Your task to perform on an android device: When is my next appointment? Image 0: 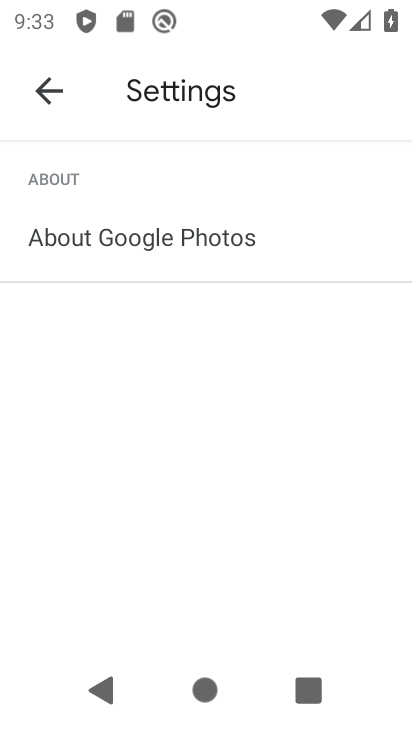
Step 0: press home button
Your task to perform on an android device: When is my next appointment? Image 1: 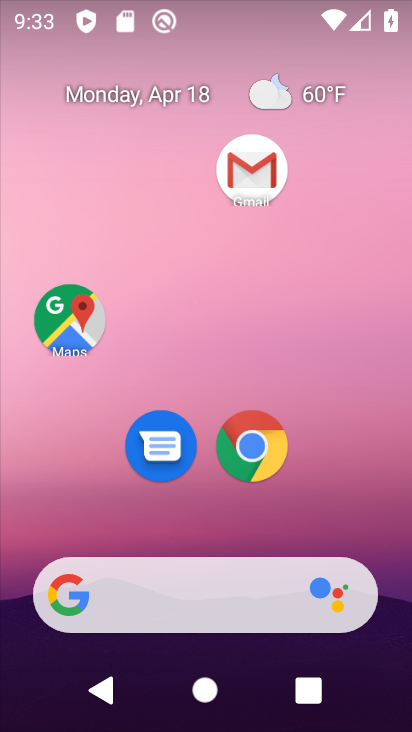
Step 1: drag from (190, 514) to (258, 97)
Your task to perform on an android device: When is my next appointment? Image 2: 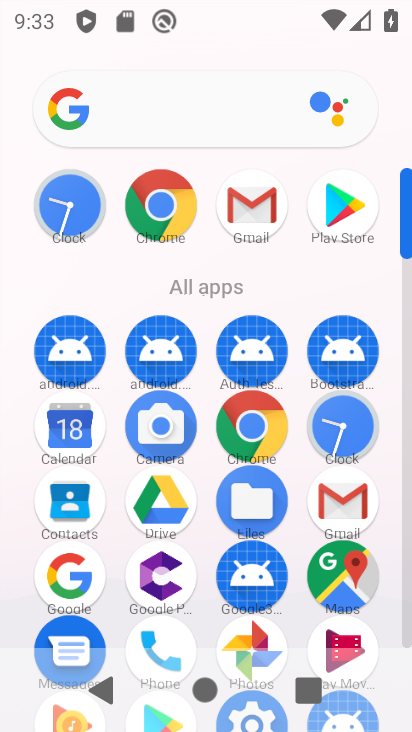
Step 2: drag from (143, 557) to (195, 315)
Your task to perform on an android device: When is my next appointment? Image 3: 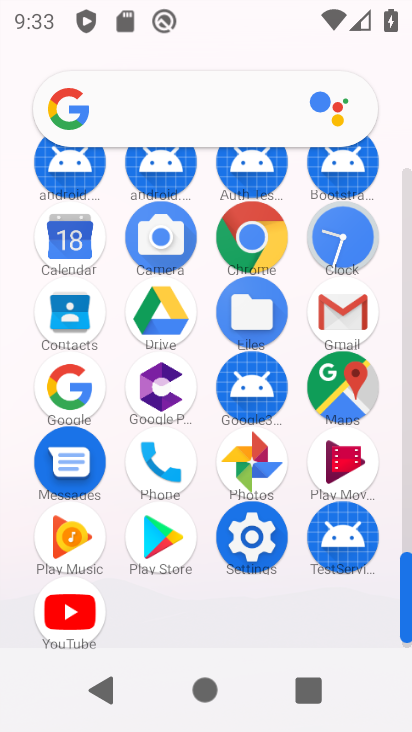
Step 3: click (72, 245)
Your task to perform on an android device: When is my next appointment? Image 4: 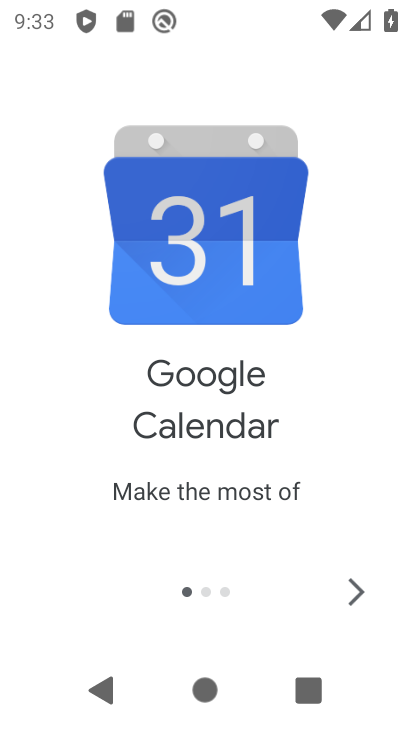
Step 4: click (364, 583)
Your task to perform on an android device: When is my next appointment? Image 5: 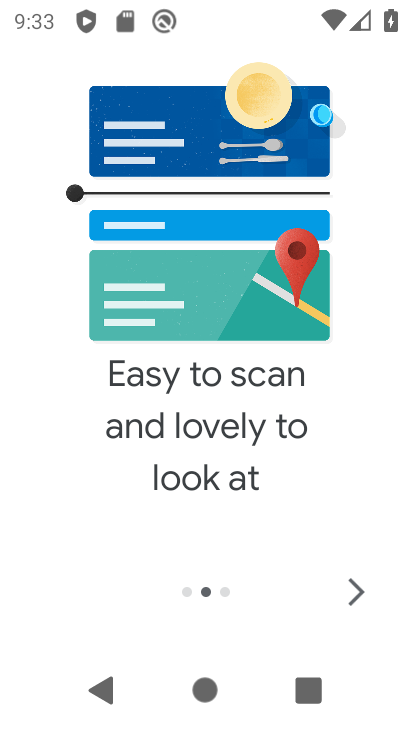
Step 5: click (364, 583)
Your task to perform on an android device: When is my next appointment? Image 6: 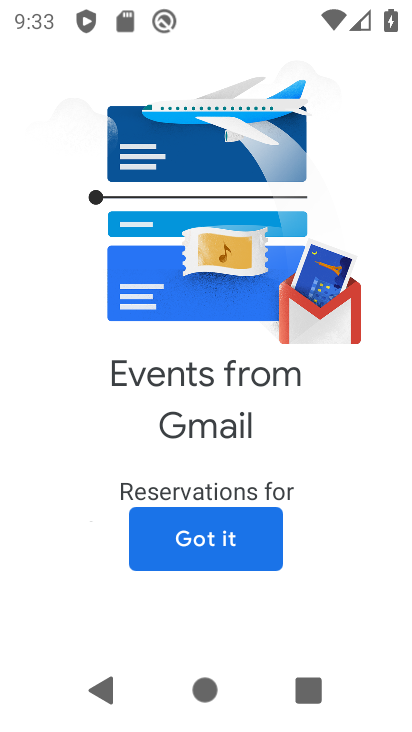
Step 6: click (189, 557)
Your task to perform on an android device: When is my next appointment? Image 7: 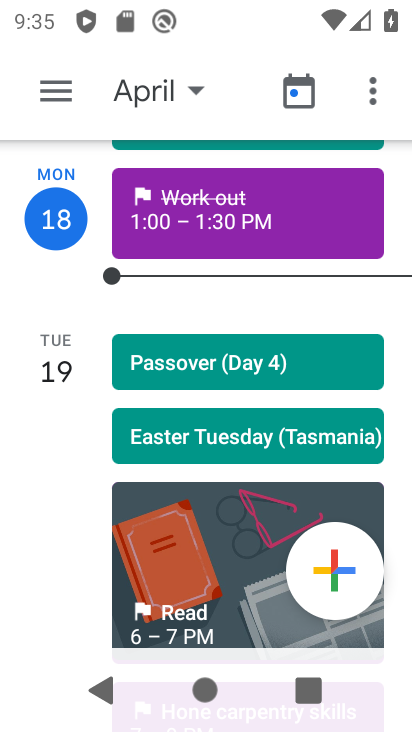
Step 7: click (53, 87)
Your task to perform on an android device: When is my next appointment? Image 8: 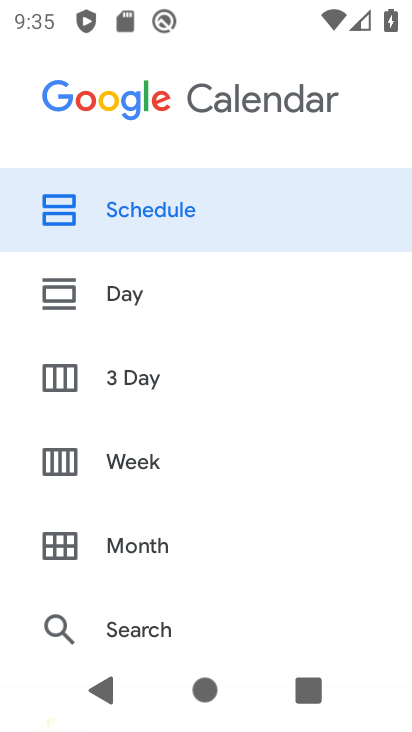
Step 8: click (163, 467)
Your task to perform on an android device: When is my next appointment? Image 9: 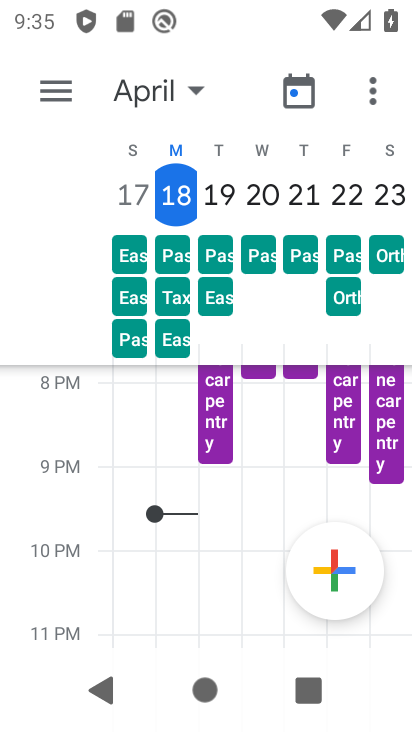
Step 9: click (228, 194)
Your task to perform on an android device: When is my next appointment? Image 10: 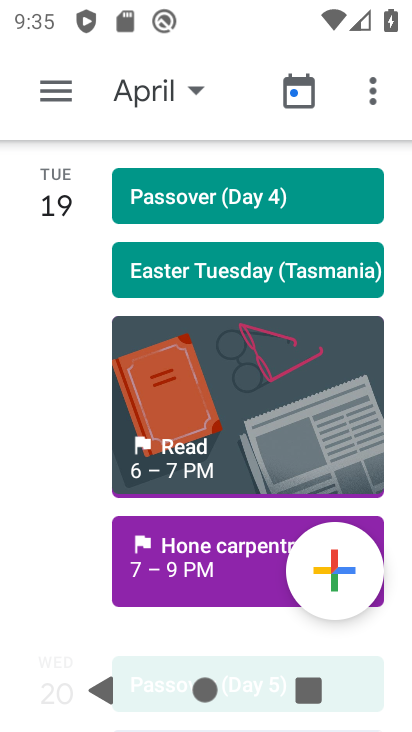
Step 10: task complete